Your task to perform on an android device: Search for vegetarian restaurants on Maps Image 0: 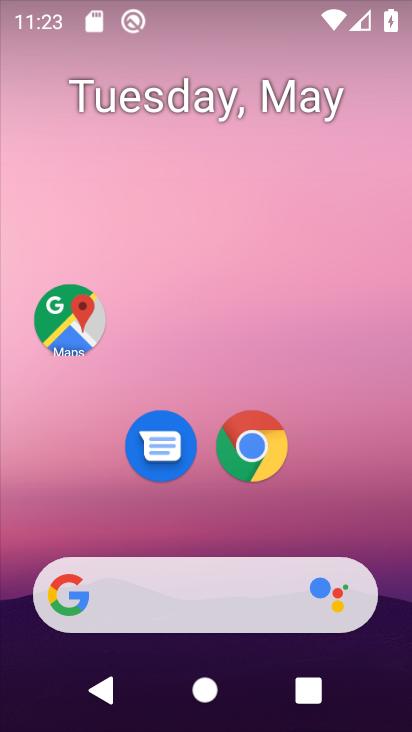
Step 0: click (73, 319)
Your task to perform on an android device: Search for vegetarian restaurants on Maps Image 1: 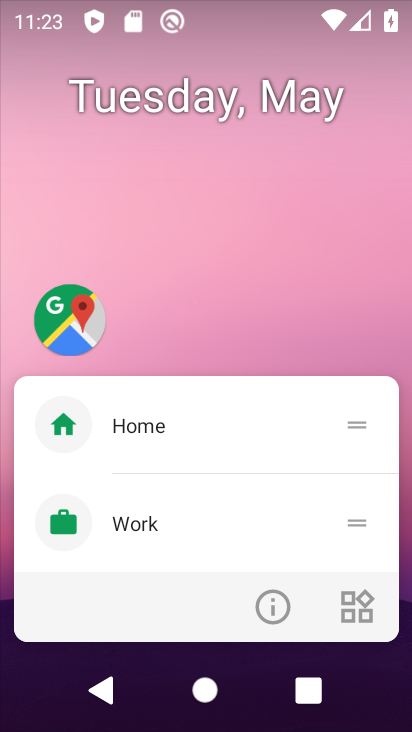
Step 1: click (74, 331)
Your task to perform on an android device: Search for vegetarian restaurants on Maps Image 2: 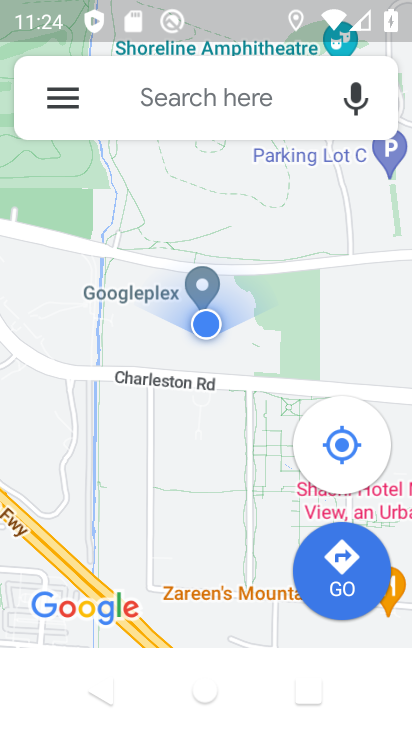
Step 2: click (182, 101)
Your task to perform on an android device: Search for vegetarian restaurants on Maps Image 3: 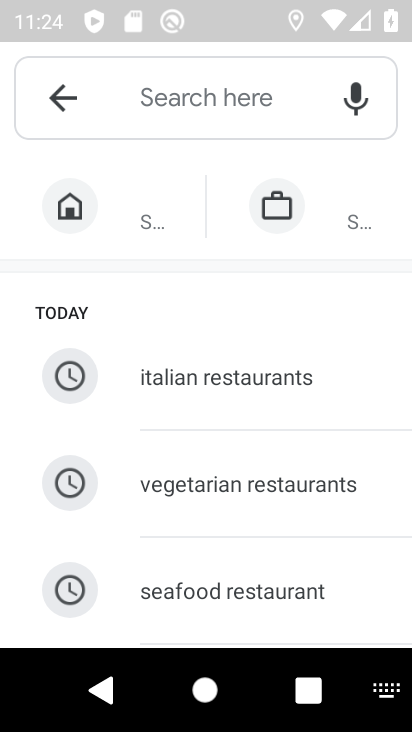
Step 3: click (200, 471)
Your task to perform on an android device: Search for vegetarian restaurants on Maps Image 4: 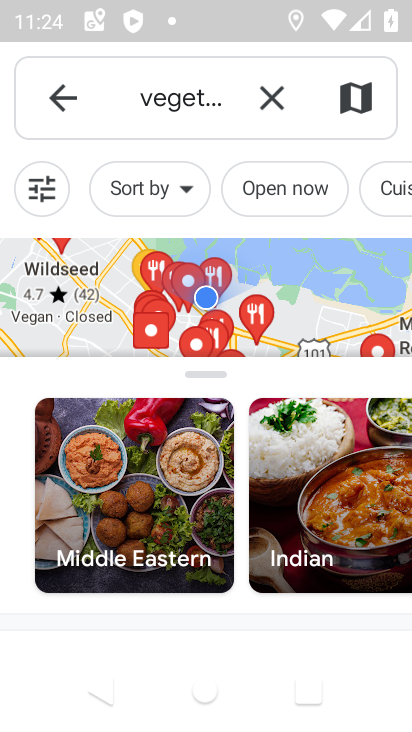
Step 4: task complete